Your task to perform on an android device: turn on notifications settings in the gmail app Image 0: 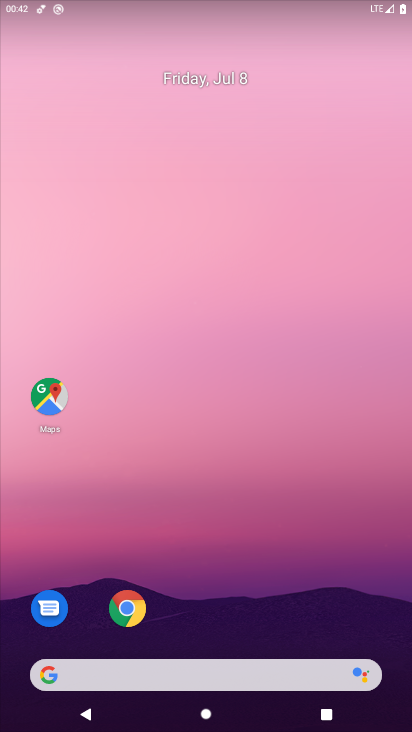
Step 0: press home button
Your task to perform on an android device: turn on notifications settings in the gmail app Image 1: 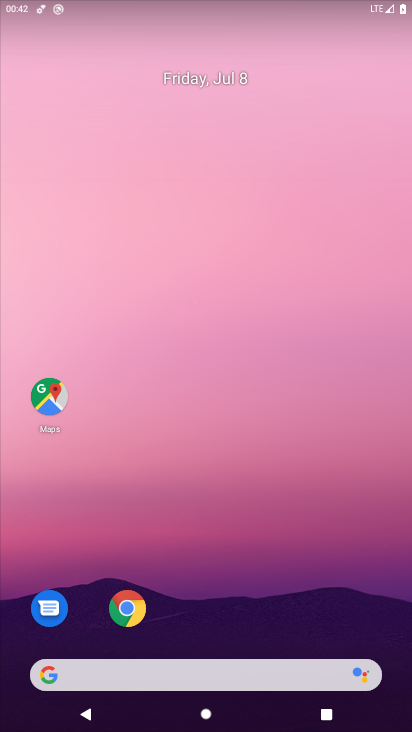
Step 1: drag from (233, 627) to (159, 38)
Your task to perform on an android device: turn on notifications settings in the gmail app Image 2: 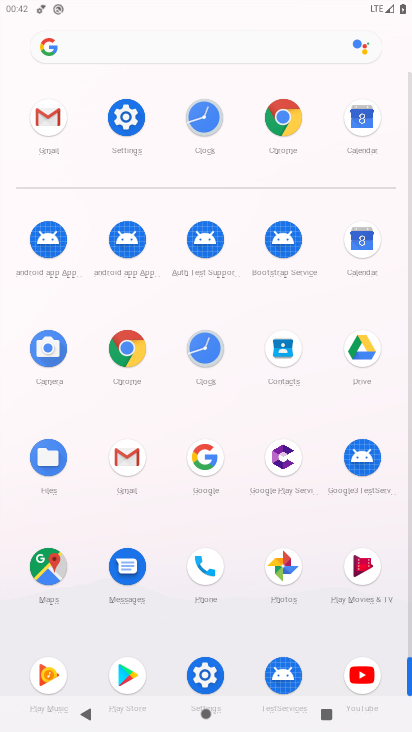
Step 2: click (122, 463)
Your task to perform on an android device: turn on notifications settings in the gmail app Image 3: 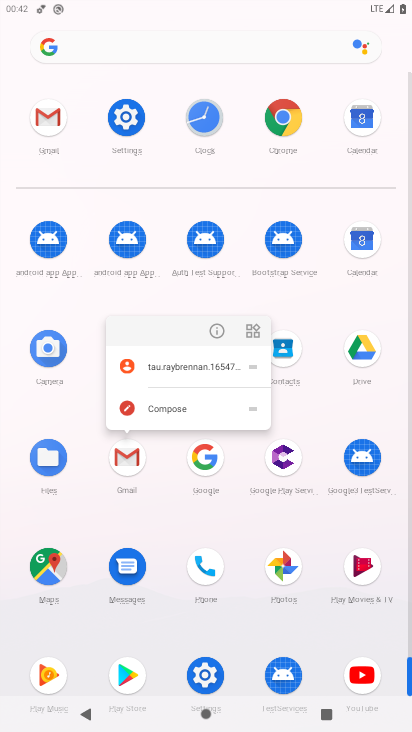
Step 3: click (206, 335)
Your task to perform on an android device: turn on notifications settings in the gmail app Image 4: 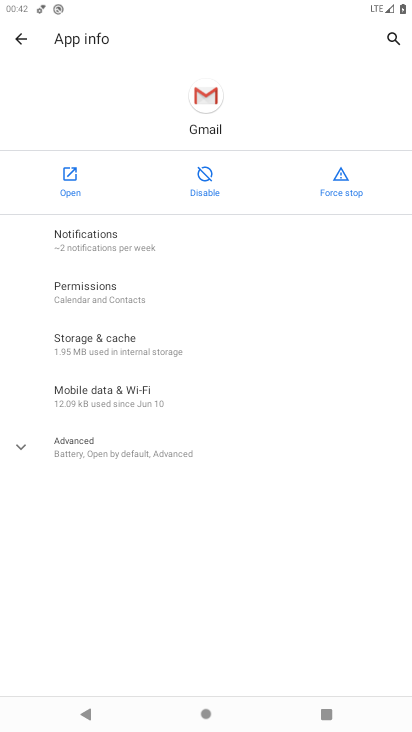
Step 4: click (121, 257)
Your task to perform on an android device: turn on notifications settings in the gmail app Image 5: 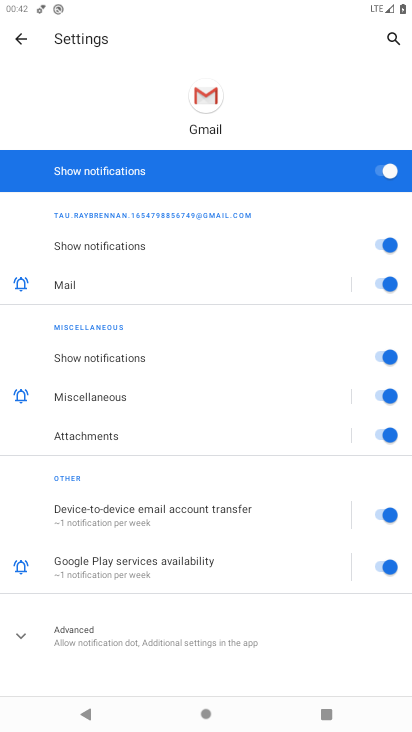
Step 5: task complete